Your task to perform on an android device: Go to notification settings Image 0: 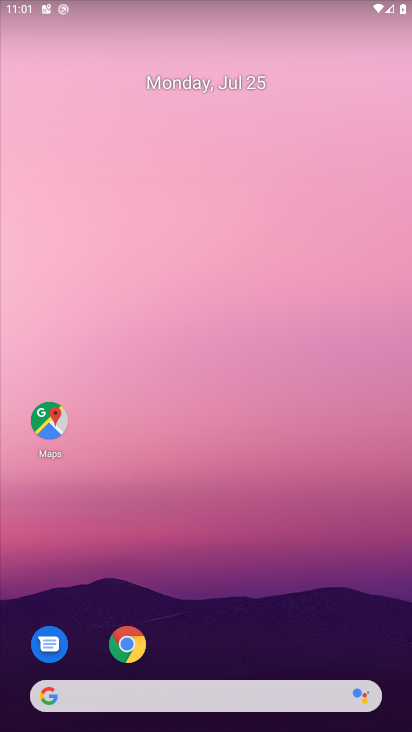
Step 0: press home button
Your task to perform on an android device: Go to notification settings Image 1: 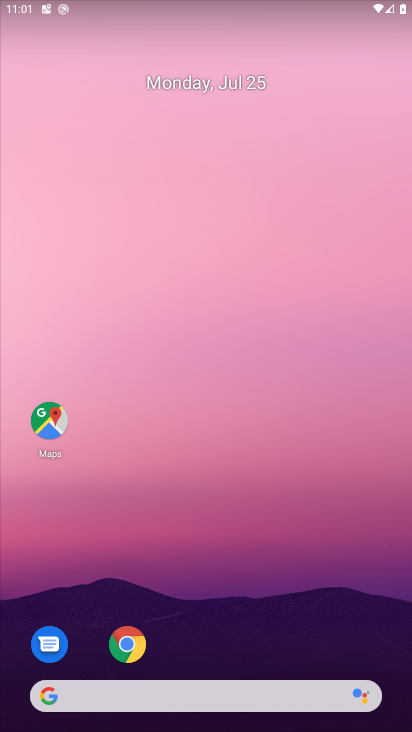
Step 1: drag from (249, 625) to (311, 0)
Your task to perform on an android device: Go to notification settings Image 2: 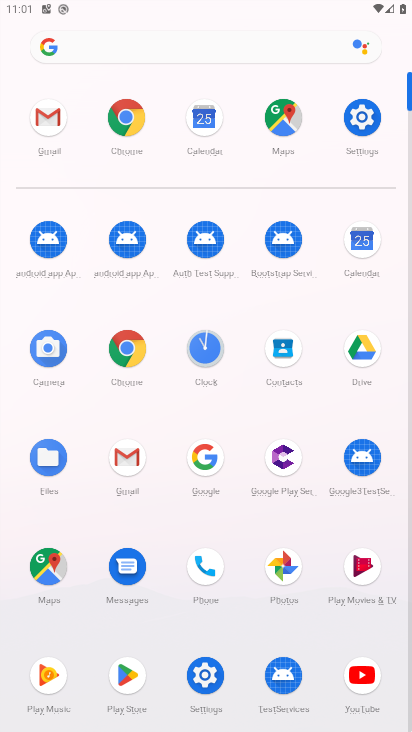
Step 2: click (341, 239)
Your task to perform on an android device: Go to notification settings Image 3: 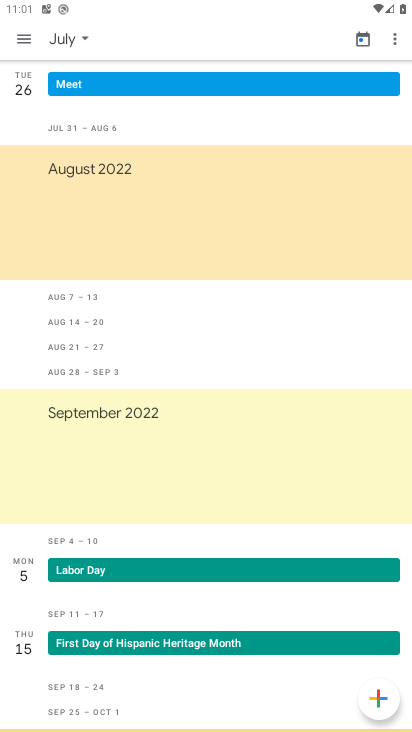
Step 3: click (27, 37)
Your task to perform on an android device: Go to notification settings Image 4: 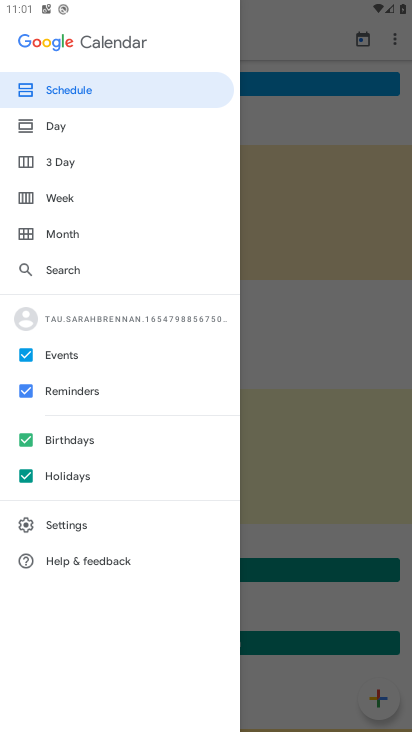
Step 4: press home button
Your task to perform on an android device: Go to notification settings Image 5: 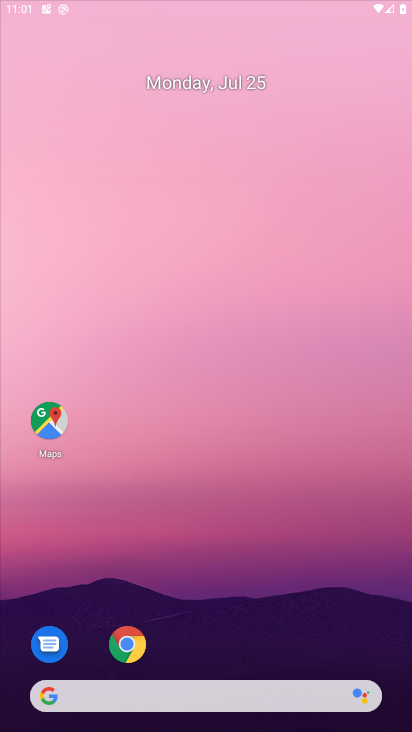
Step 5: drag from (196, 585) to (97, 271)
Your task to perform on an android device: Go to notification settings Image 6: 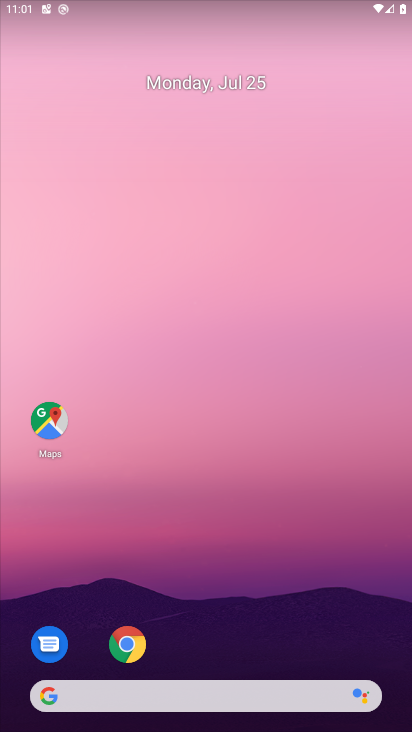
Step 6: drag from (308, 703) to (372, 246)
Your task to perform on an android device: Go to notification settings Image 7: 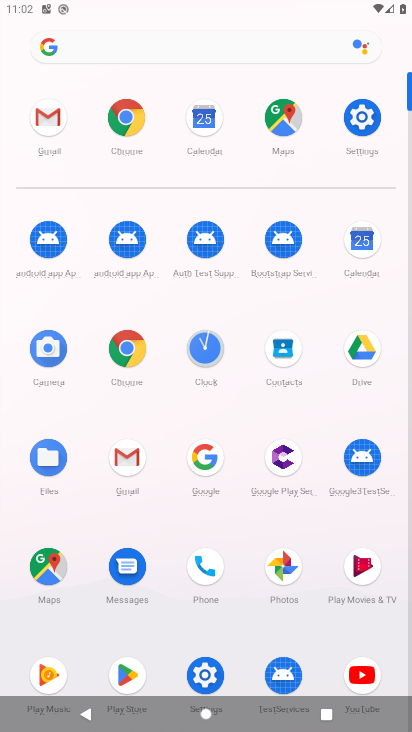
Step 7: click (354, 124)
Your task to perform on an android device: Go to notification settings Image 8: 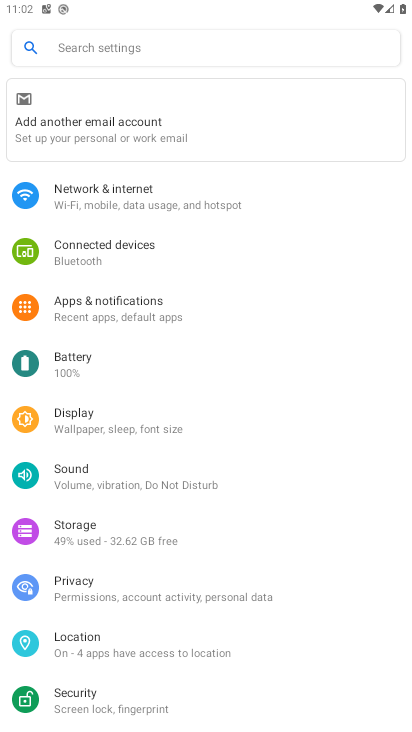
Step 8: click (110, 303)
Your task to perform on an android device: Go to notification settings Image 9: 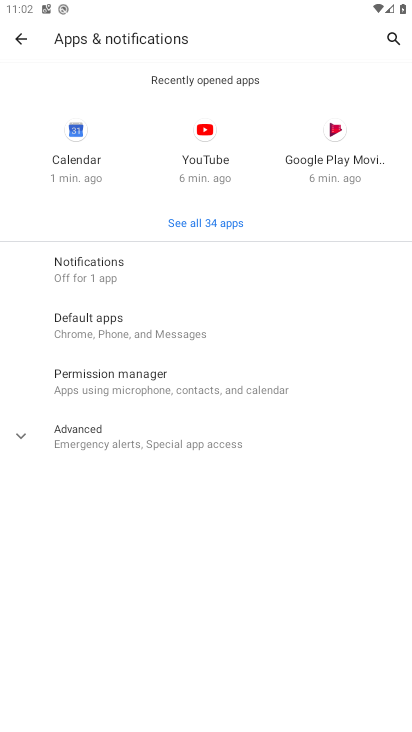
Step 9: click (83, 277)
Your task to perform on an android device: Go to notification settings Image 10: 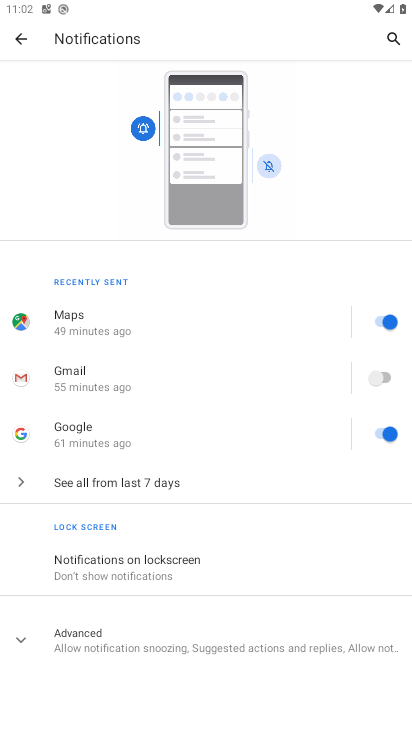
Step 10: task complete